Your task to perform on an android device: Open network settings Image 0: 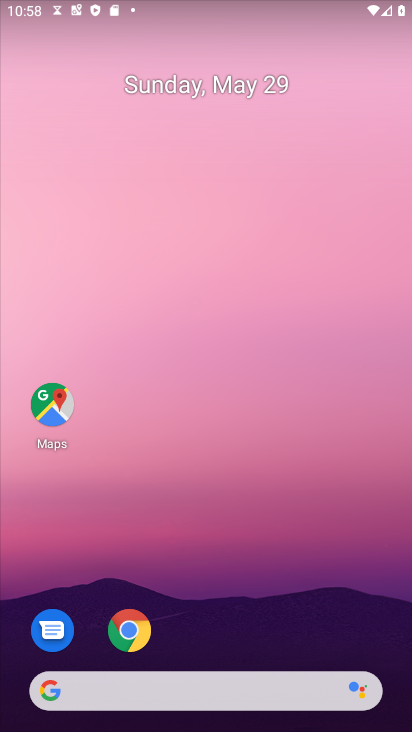
Step 0: drag from (298, 581) to (222, 1)
Your task to perform on an android device: Open network settings Image 1: 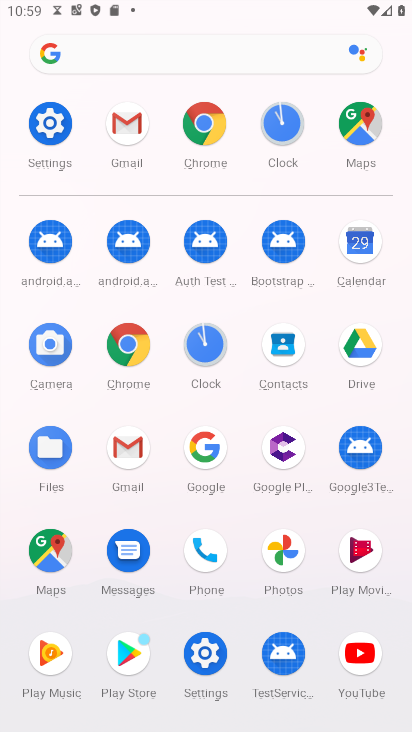
Step 1: click (55, 128)
Your task to perform on an android device: Open network settings Image 2: 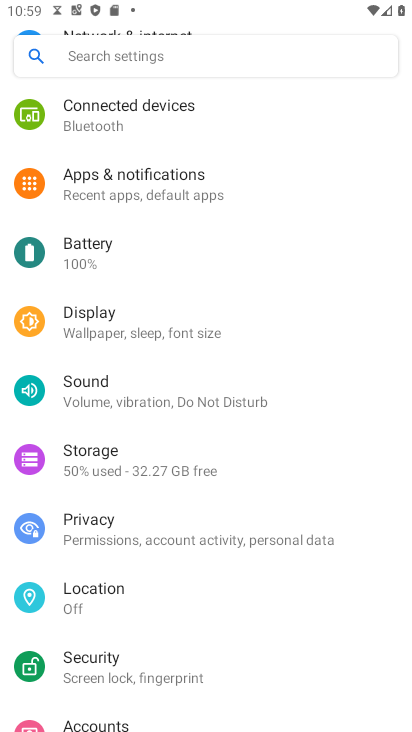
Step 2: drag from (178, 236) to (195, 630)
Your task to perform on an android device: Open network settings Image 3: 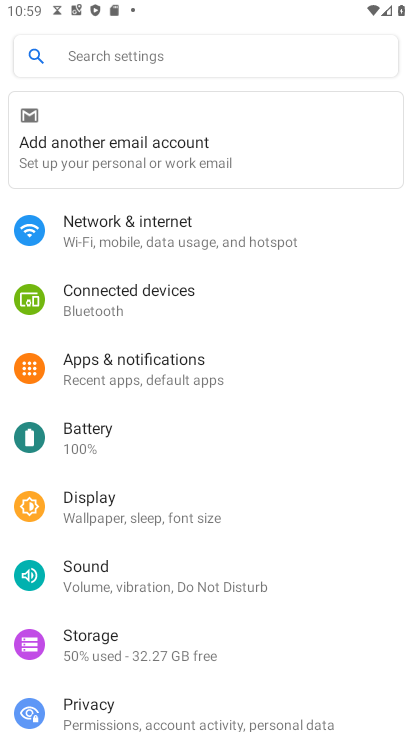
Step 3: click (296, 222)
Your task to perform on an android device: Open network settings Image 4: 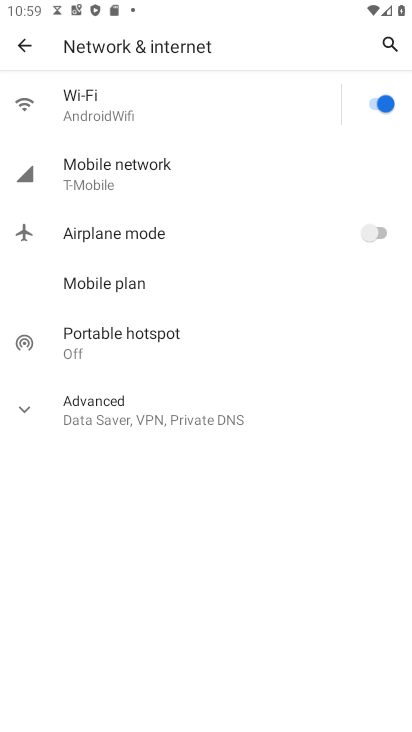
Step 4: task complete